Your task to perform on an android device: turn smart compose on in the gmail app Image 0: 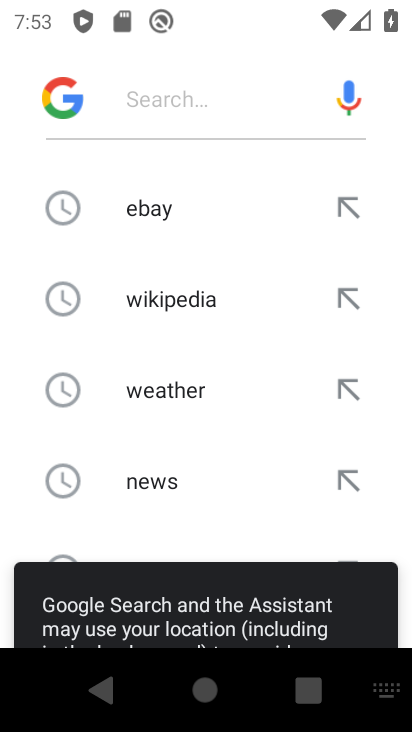
Step 0: press back button
Your task to perform on an android device: turn smart compose on in the gmail app Image 1: 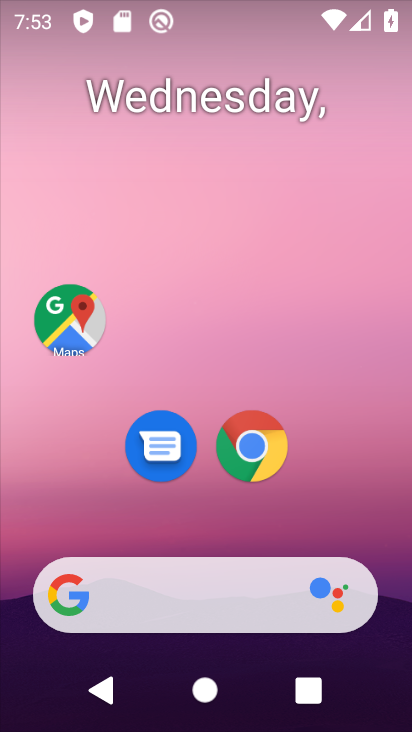
Step 1: drag from (379, 696) to (286, 87)
Your task to perform on an android device: turn smart compose on in the gmail app Image 2: 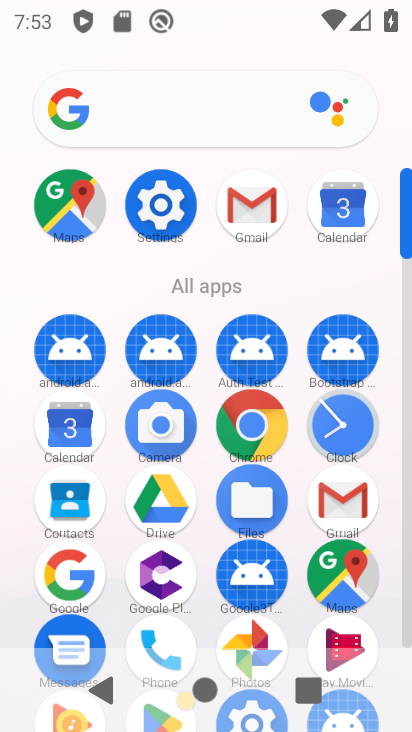
Step 2: click (340, 503)
Your task to perform on an android device: turn smart compose on in the gmail app Image 3: 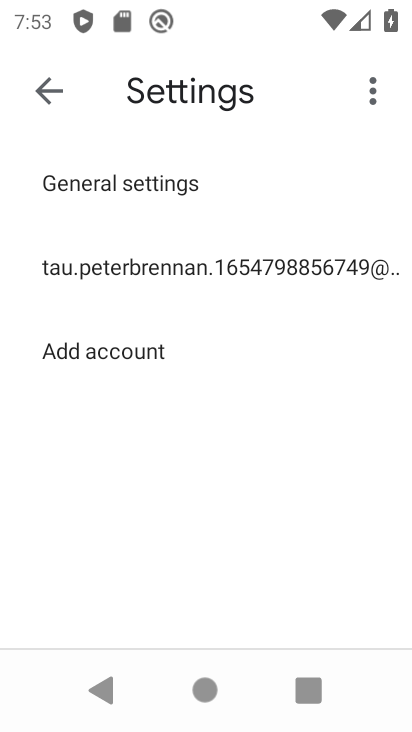
Step 3: click (78, 264)
Your task to perform on an android device: turn smart compose on in the gmail app Image 4: 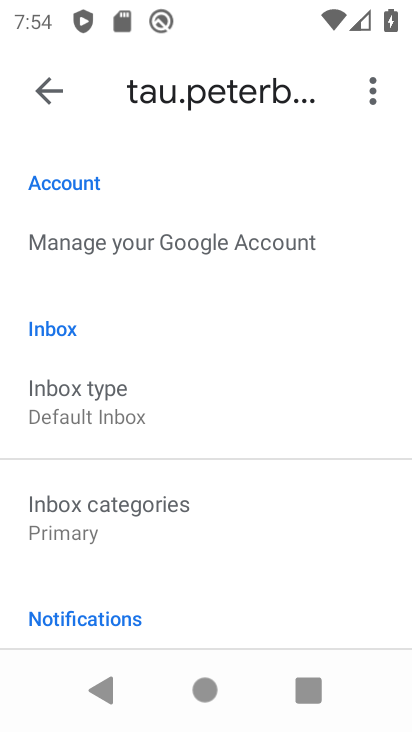
Step 4: task complete